Your task to perform on an android device: Go to Google maps Image 0: 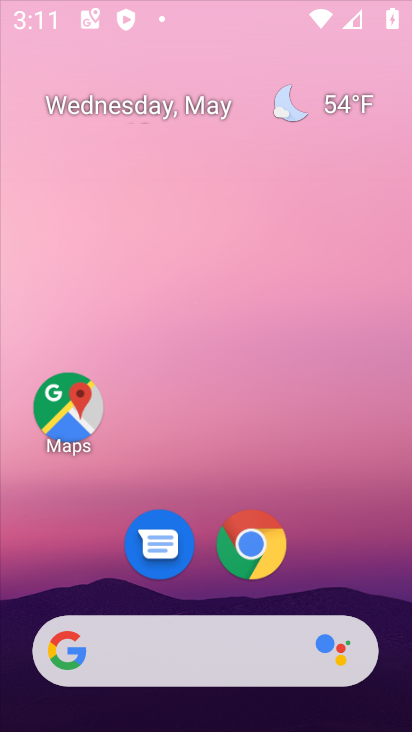
Step 0: drag from (335, 581) to (355, 156)
Your task to perform on an android device: Go to Google maps Image 1: 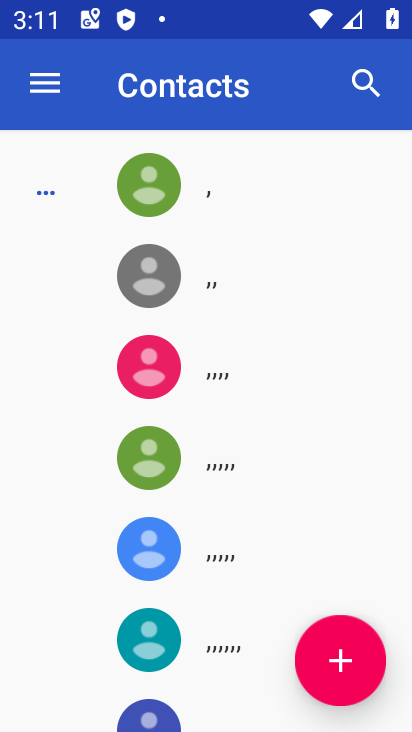
Step 1: press home button
Your task to perform on an android device: Go to Google maps Image 2: 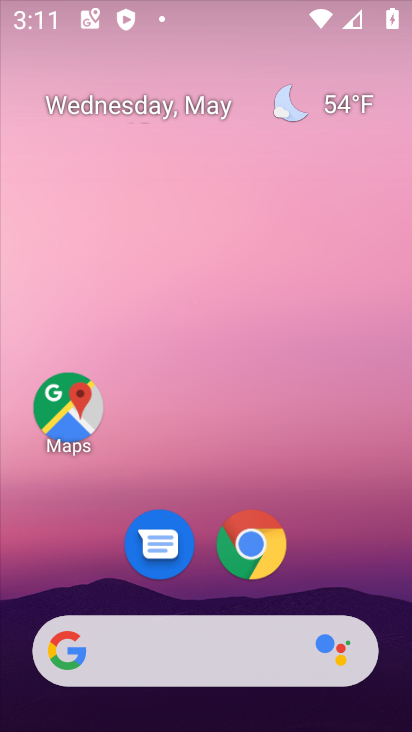
Step 2: click (68, 441)
Your task to perform on an android device: Go to Google maps Image 3: 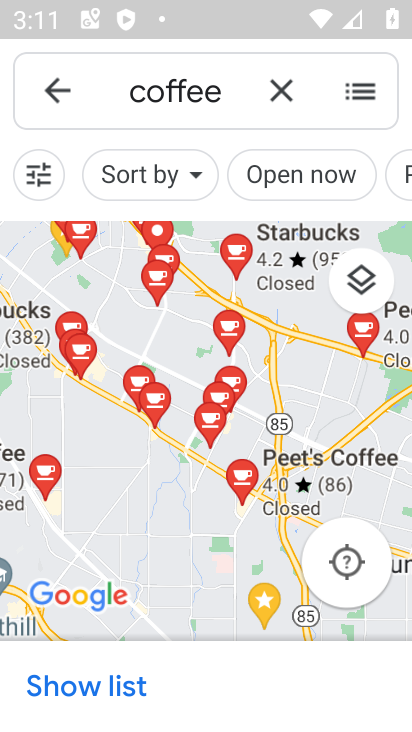
Step 3: task complete